Your task to perform on an android device: Open sound settings Image 0: 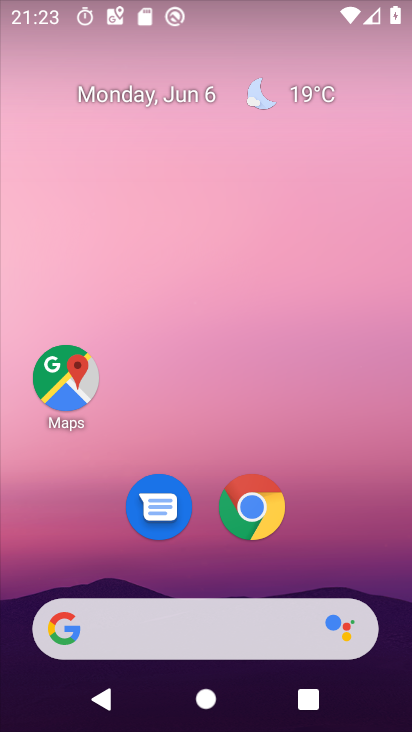
Step 0: drag from (401, 524) to (308, 100)
Your task to perform on an android device: Open sound settings Image 1: 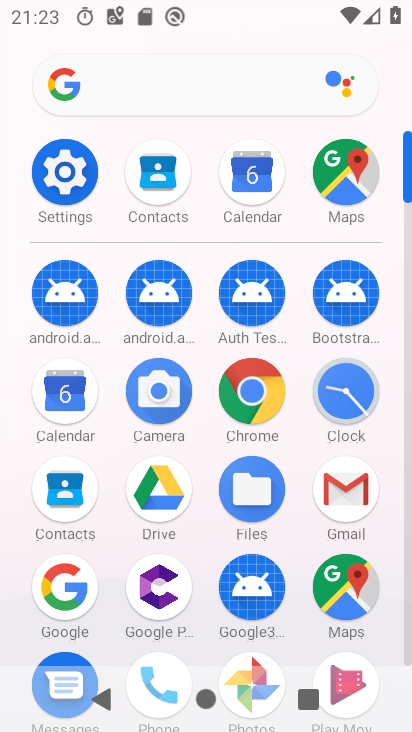
Step 1: click (56, 164)
Your task to perform on an android device: Open sound settings Image 2: 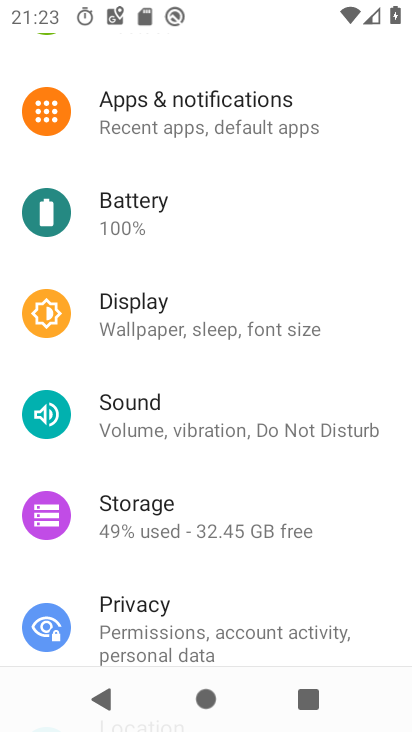
Step 2: click (208, 412)
Your task to perform on an android device: Open sound settings Image 3: 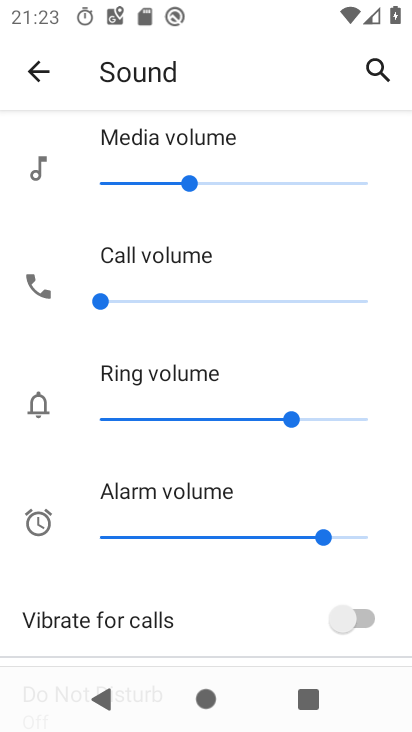
Step 3: task complete